Your task to perform on an android device: move a message to another label in the gmail app Image 0: 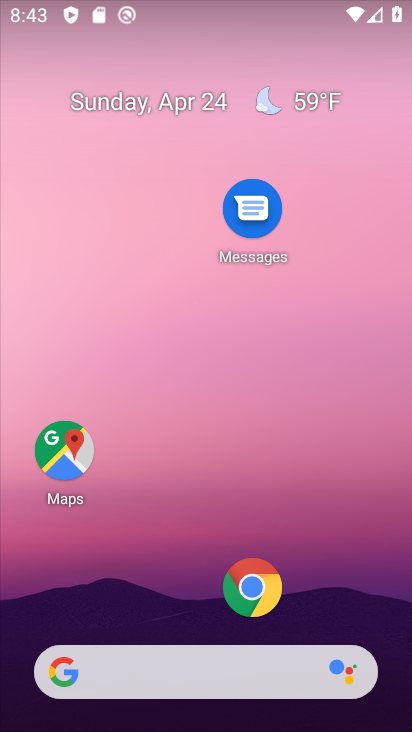
Step 0: drag from (181, 495) to (247, 0)
Your task to perform on an android device: move a message to another label in the gmail app Image 1: 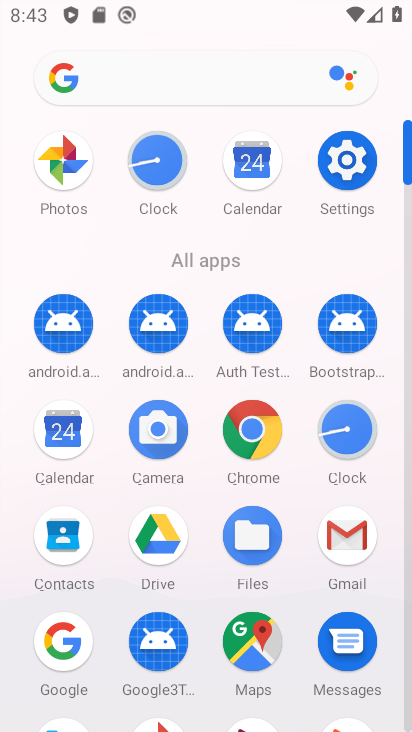
Step 1: click (341, 534)
Your task to perform on an android device: move a message to another label in the gmail app Image 2: 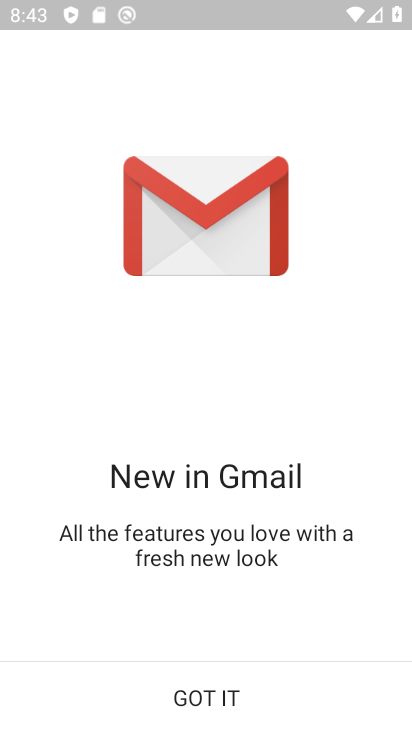
Step 2: click (286, 691)
Your task to perform on an android device: move a message to another label in the gmail app Image 3: 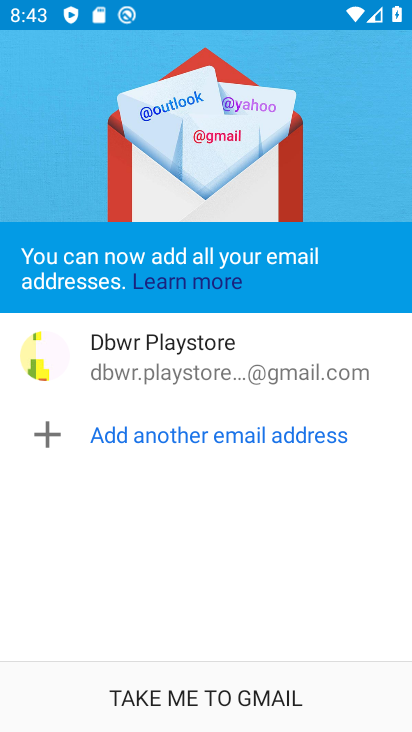
Step 3: click (254, 694)
Your task to perform on an android device: move a message to another label in the gmail app Image 4: 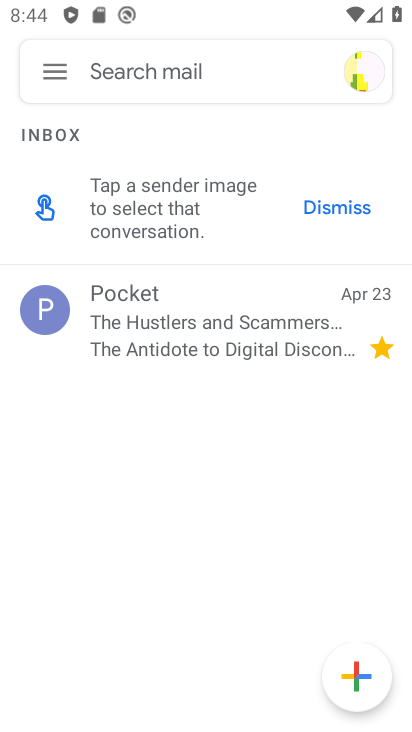
Step 4: click (59, 318)
Your task to perform on an android device: move a message to another label in the gmail app Image 5: 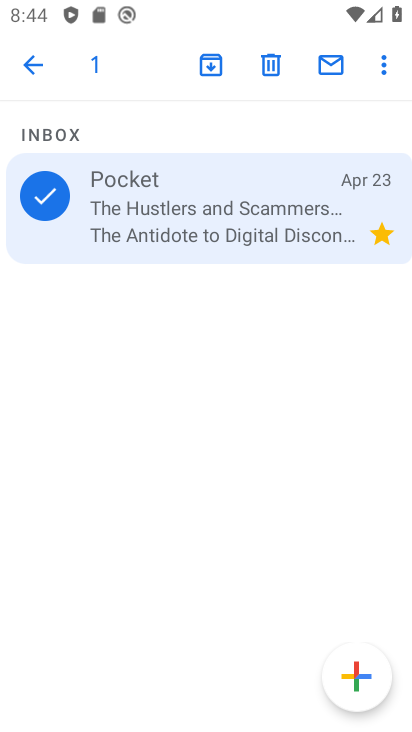
Step 5: click (383, 60)
Your task to perform on an android device: move a message to another label in the gmail app Image 6: 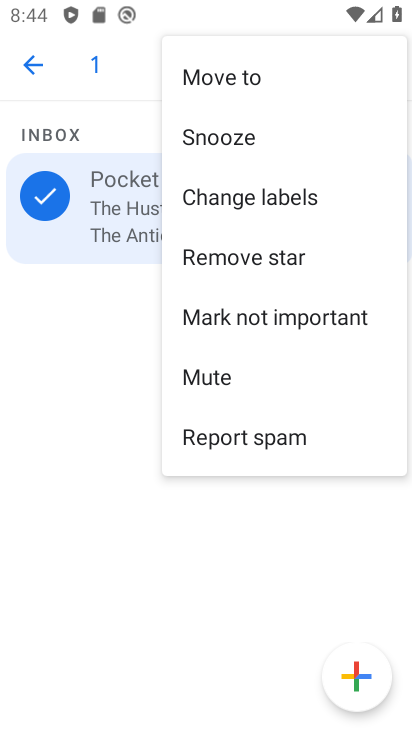
Step 6: click (242, 211)
Your task to perform on an android device: move a message to another label in the gmail app Image 7: 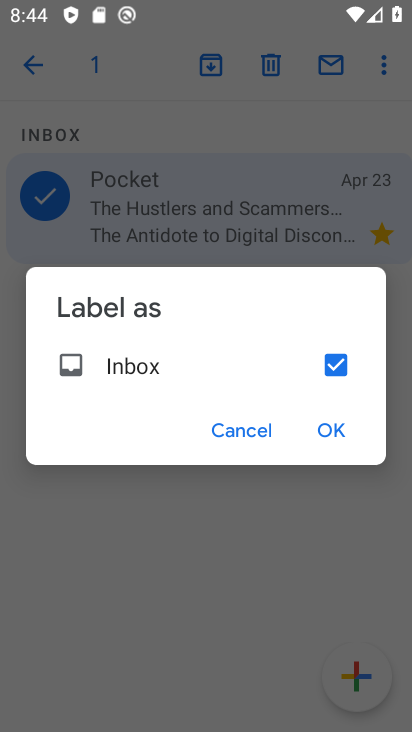
Step 7: click (259, 430)
Your task to perform on an android device: move a message to another label in the gmail app Image 8: 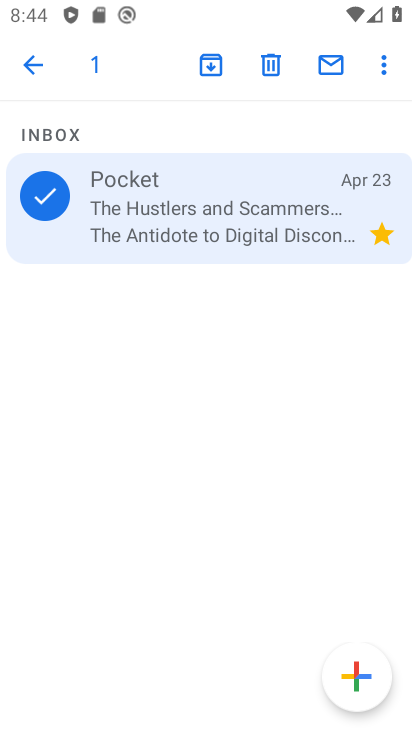
Step 8: click (386, 60)
Your task to perform on an android device: move a message to another label in the gmail app Image 9: 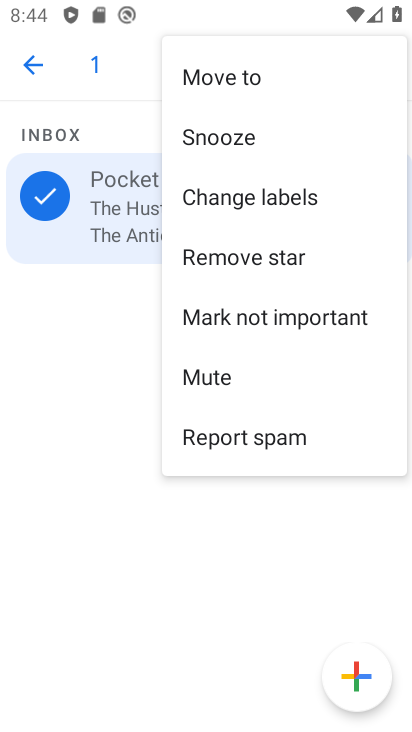
Step 9: click (248, 77)
Your task to perform on an android device: move a message to another label in the gmail app Image 10: 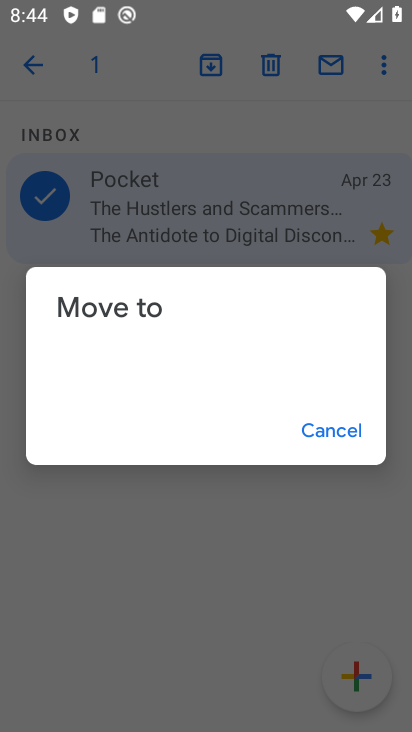
Step 10: click (345, 425)
Your task to perform on an android device: move a message to another label in the gmail app Image 11: 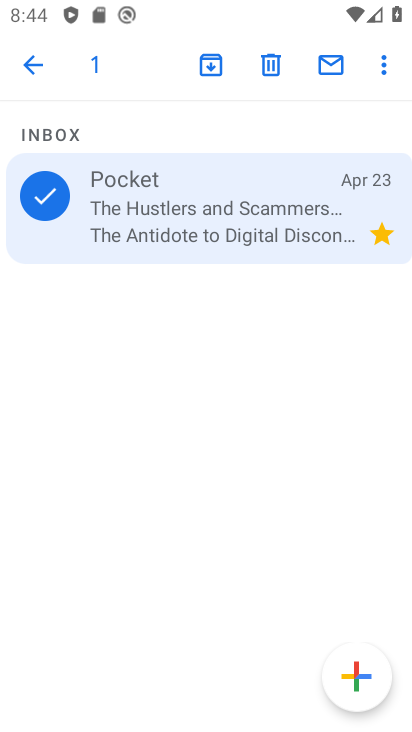
Step 11: click (375, 69)
Your task to perform on an android device: move a message to another label in the gmail app Image 12: 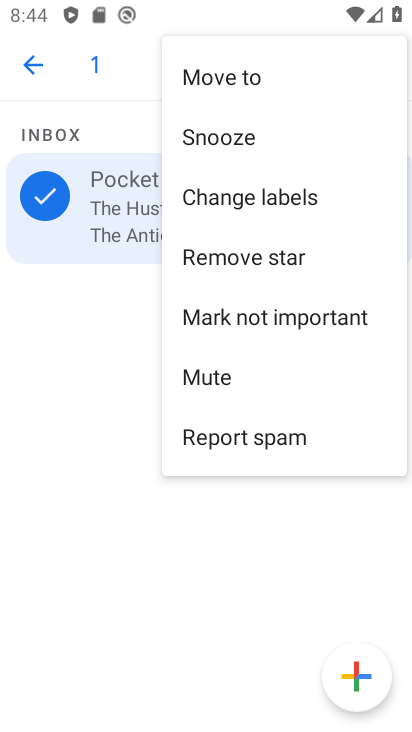
Step 12: click (287, 186)
Your task to perform on an android device: move a message to another label in the gmail app Image 13: 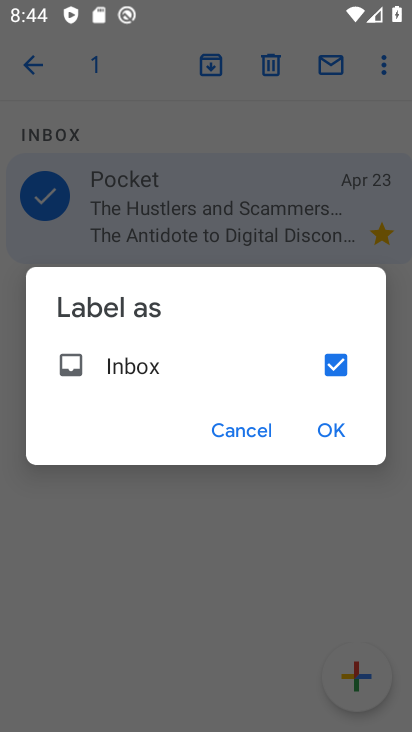
Step 13: click (337, 358)
Your task to perform on an android device: move a message to another label in the gmail app Image 14: 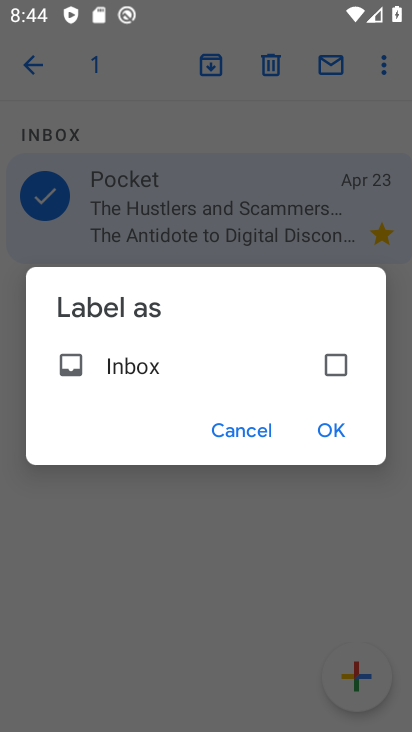
Step 14: click (338, 425)
Your task to perform on an android device: move a message to another label in the gmail app Image 15: 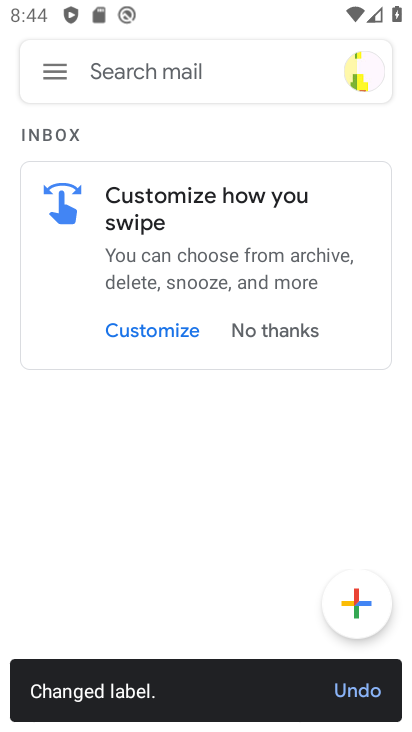
Step 15: task complete